Your task to perform on an android device: Open maps Image 0: 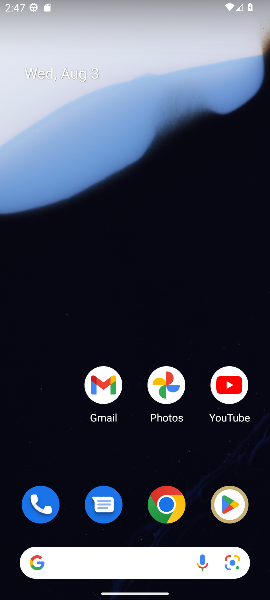
Step 0: drag from (201, 465) to (131, 95)
Your task to perform on an android device: Open maps Image 1: 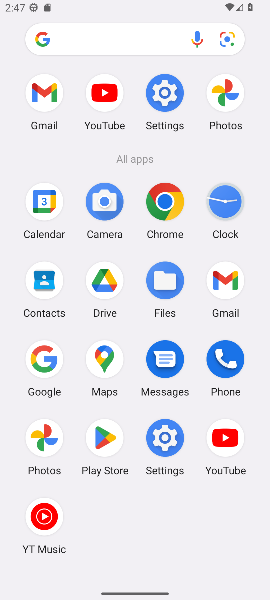
Step 1: click (105, 364)
Your task to perform on an android device: Open maps Image 2: 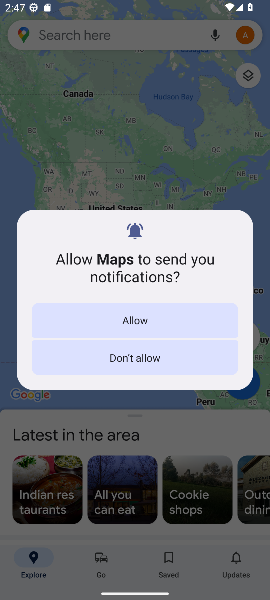
Step 2: task complete